Your task to perform on an android device: What is the news today? Image 0: 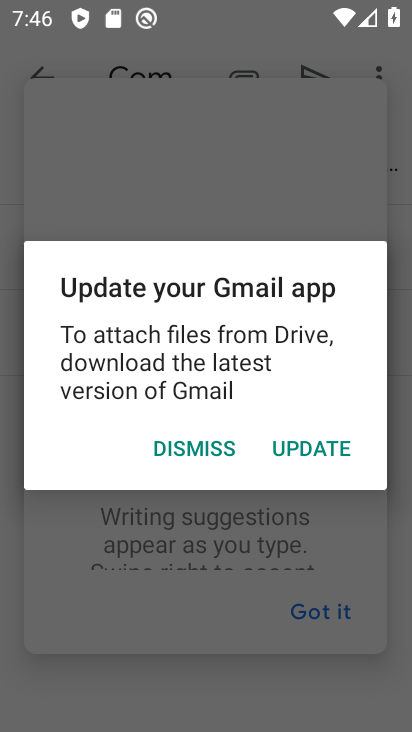
Step 0: click (204, 453)
Your task to perform on an android device: What is the news today? Image 1: 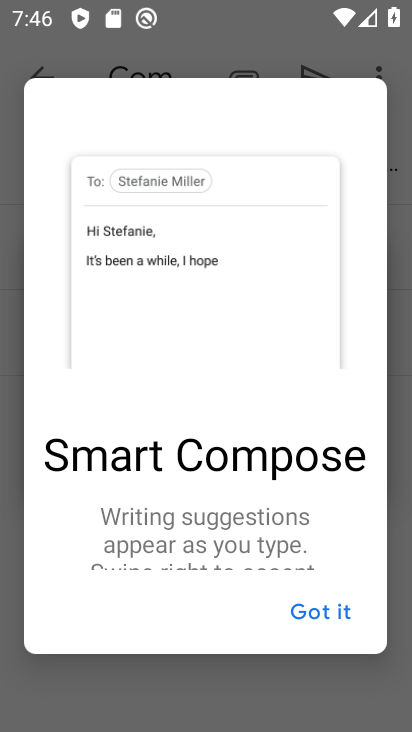
Step 1: press back button
Your task to perform on an android device: What is the news today? Image 2: 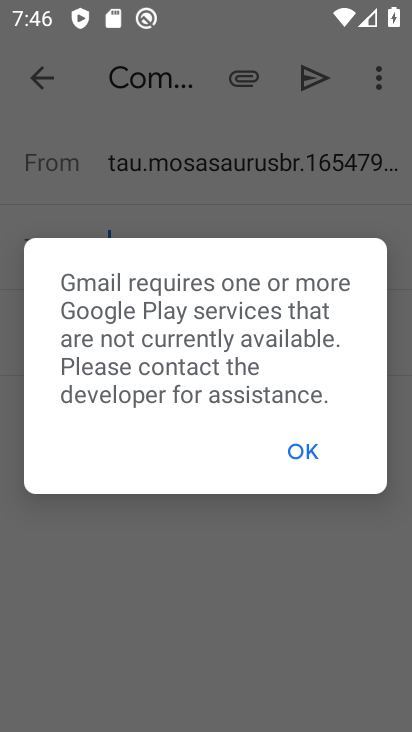
Step 2: click (304, 466)
Your task to perform on an android device: What is the news today? Image 3: 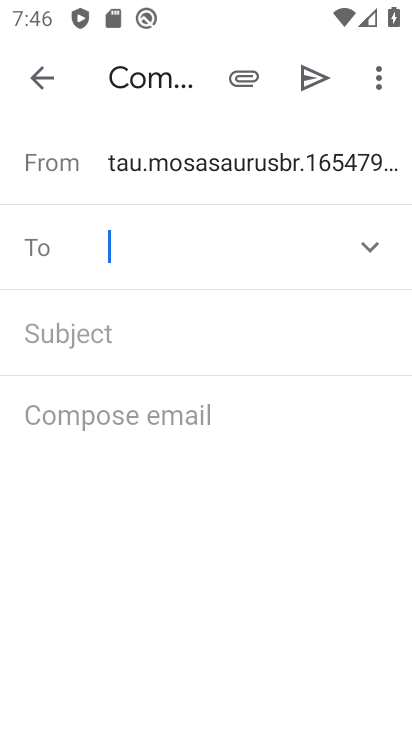
Step 3: click (43, 78)
Your task to perform on an android device: What is the news today? Image 4: 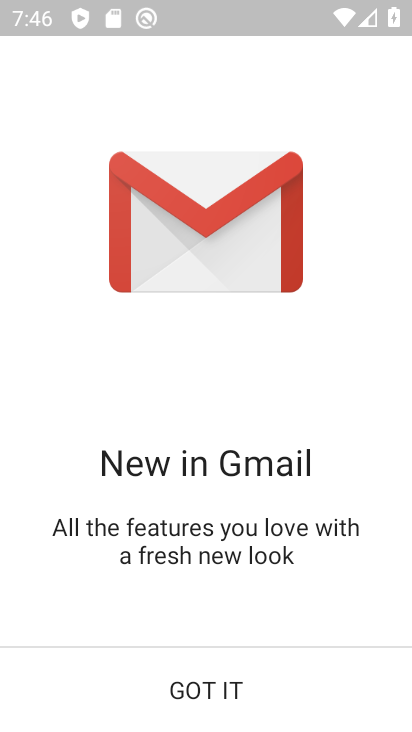
Step 4: press back button
Your task to perform on an android device: What is the news today? Image 5: 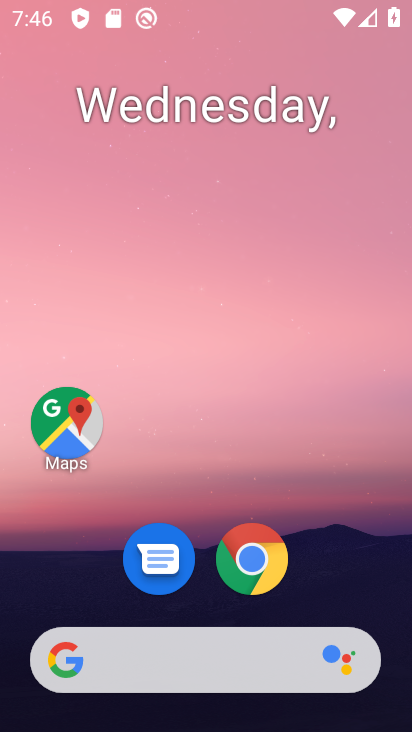
Step 5: press back button
Your task to perform on an android device: What is the news today? Image 6: 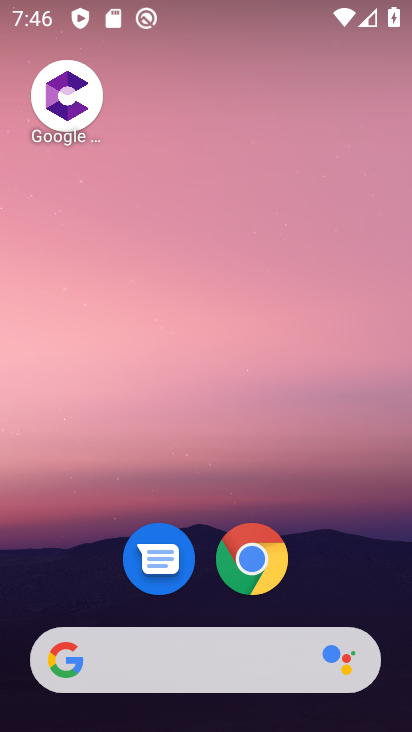
Step 6: click (189, 668)
Your task to perform on an android device: What is the news today? Image 7: 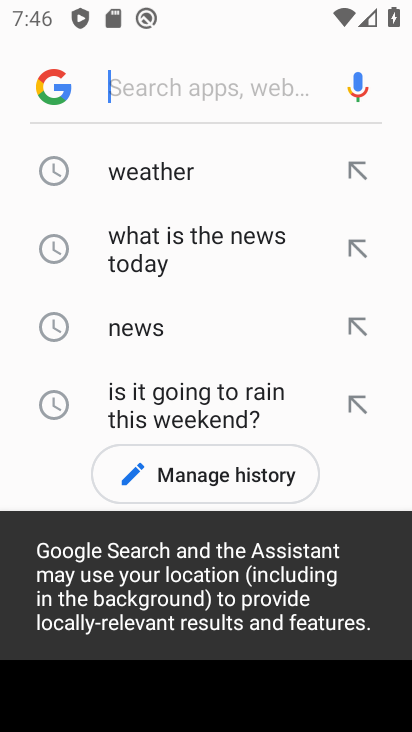
Step 7: click (142, 323)
Your task to perform on an android device: What is the news today? Image 8: 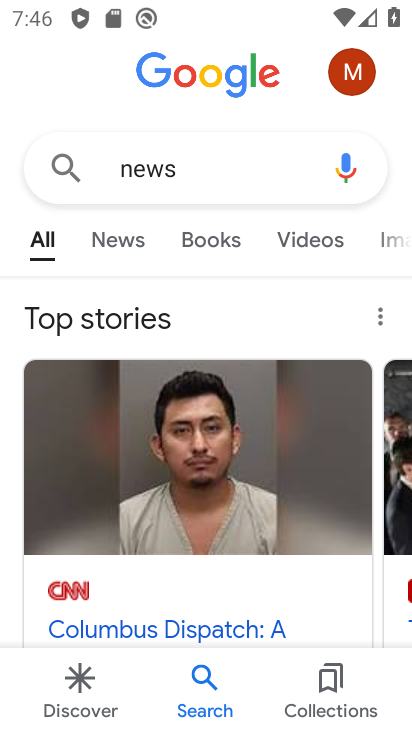
Step 8: task complete